Your task to perform on an android device: Go to sound settings Image 0: 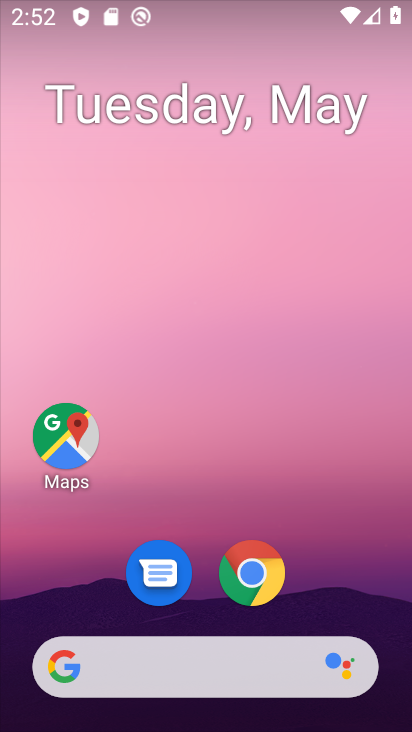
Step 0: drag from (333, 591) to (309, 22)
Your task to perform on an android device: Go to sound settings Image 1: 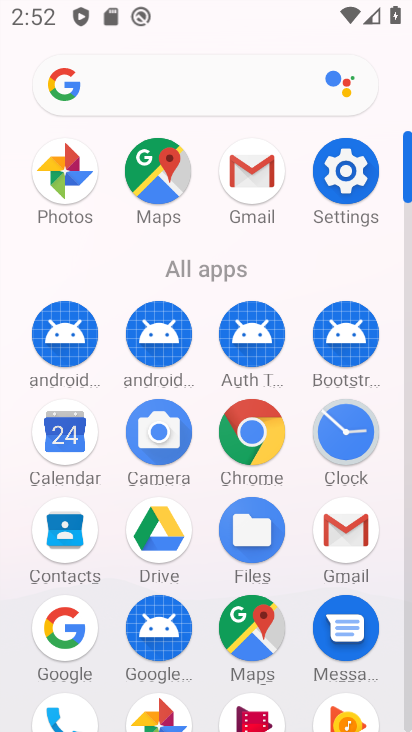
Step 1: click (345, 168)
Your task to perform on an android device: Go to sound settings Image 2: 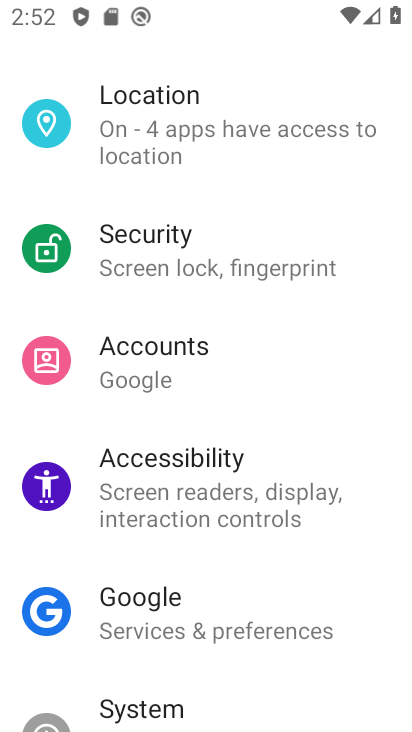
Step 2: drag from (277, 173) to (213, 605)
Your task to perform on an android device: Go to sound settings Image 3: 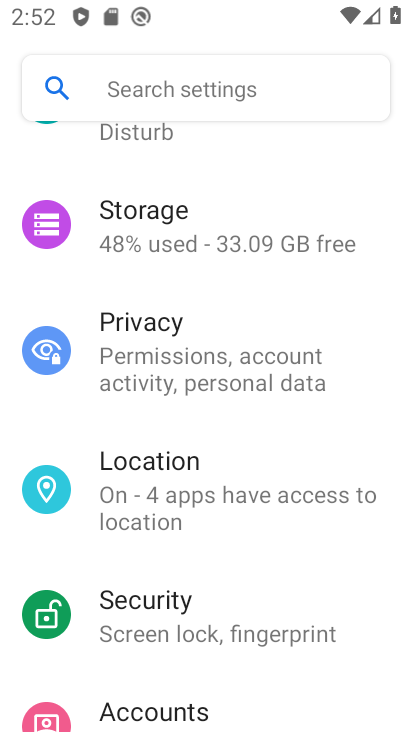
Step 3: drag from (228, 183) to (228, 588)
Your task to perform on an android device: Go to sound settings Image 4: 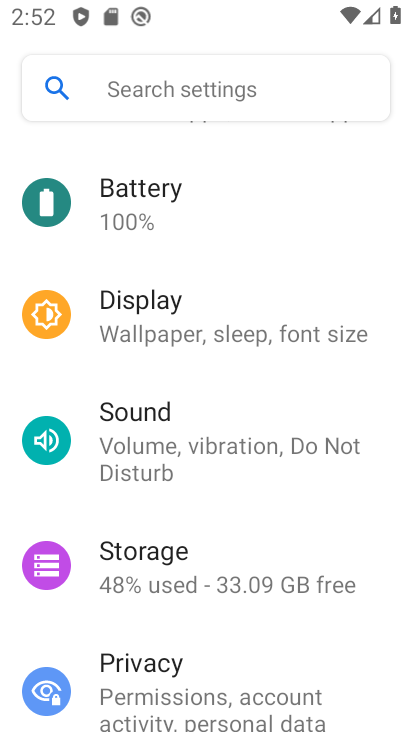
Step 4: drag from (236, 217) to (236, 599)
Your task to perform on an android device: Go to sound settings Image 5: 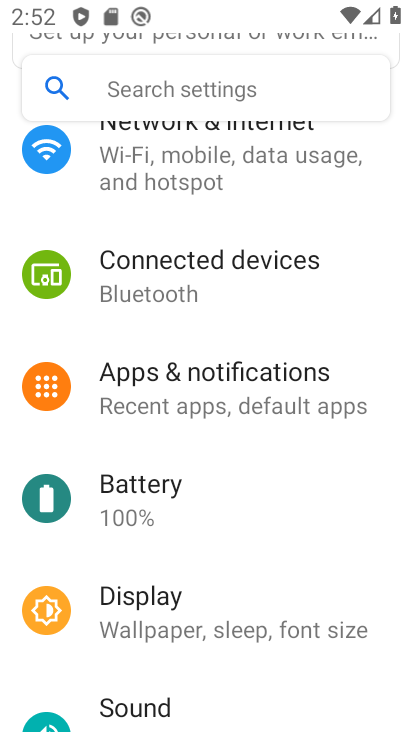
Step 5: drag from (239, 593) to (289, 244)
Your task to perform on an android device: Go to sound settings Image 6: 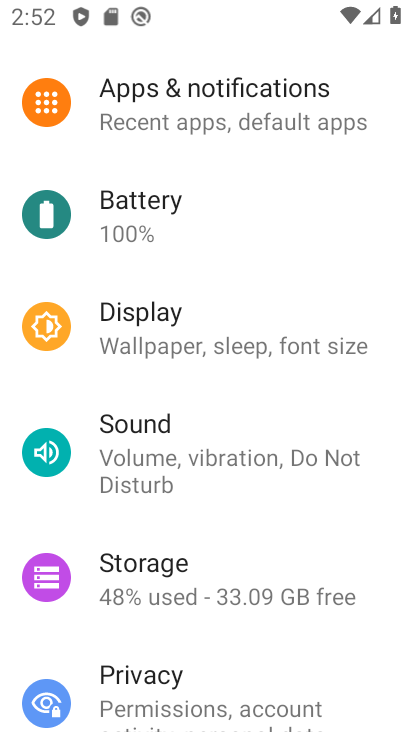
Step 6: click (171, 429)
Your task to perform on an android device: Go to sound settings Image 7: 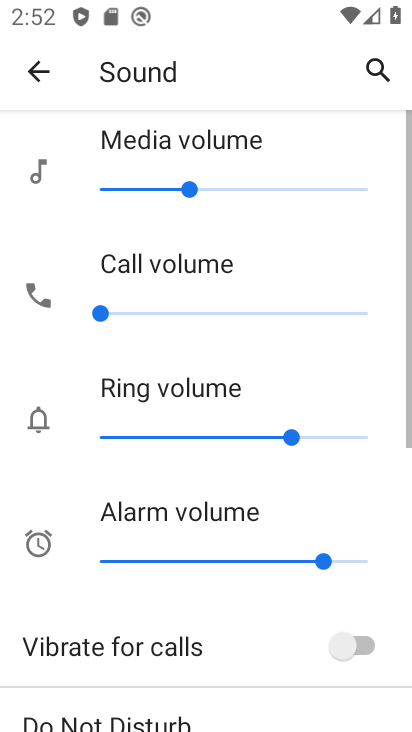
Step 7: drag from (147, 526) to (207, 163)
Your task to perform on an android device: Go to sound settings Image 8: 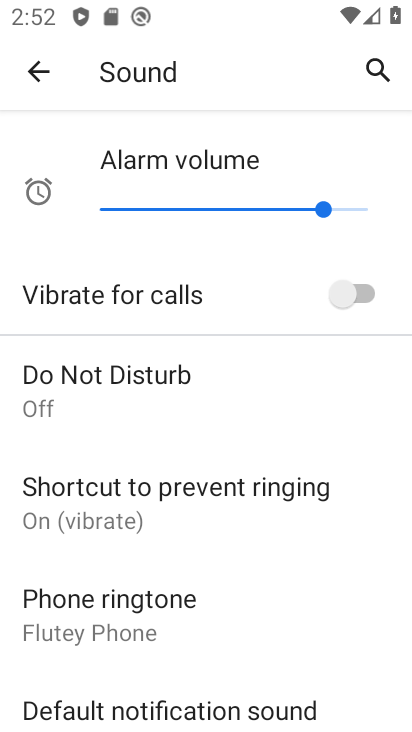
Step 8: drag from (170, 568) to (230, 177)
Your task to perform on an android device: Go to sound settings Image 9: 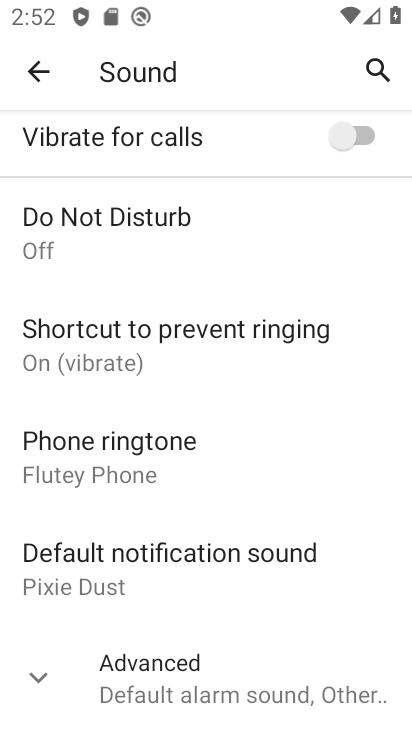
Step 9: click (45, 674)
Your task to perform on an android device: Go to sound settings Image 10: 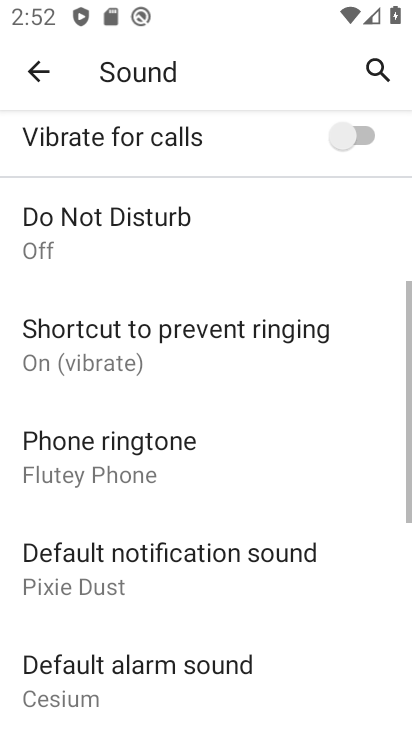
Step 10: task complete